Your task to perform on an android device: Go to battery settings Image 0: 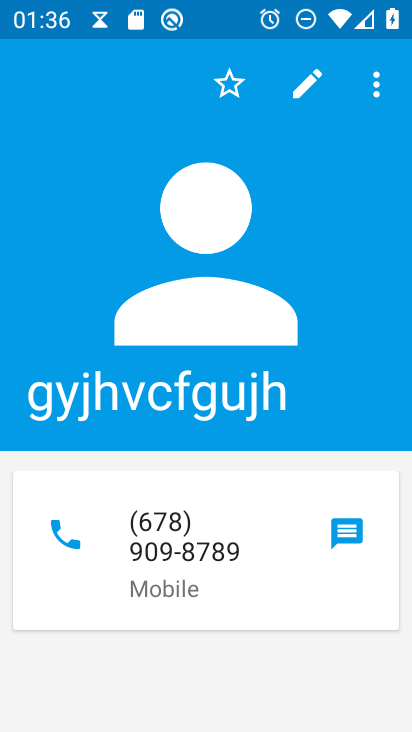
Step 0: press home button
Your task to perform on an android device: Go to battery settings Image 1: 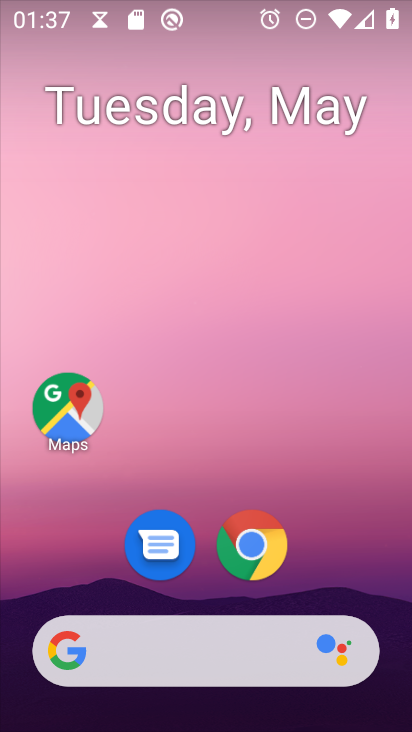
Step 1: drag from (333, 596) to (336, 93)
Your task to perform on an android device: Go to battery settings Image 2: 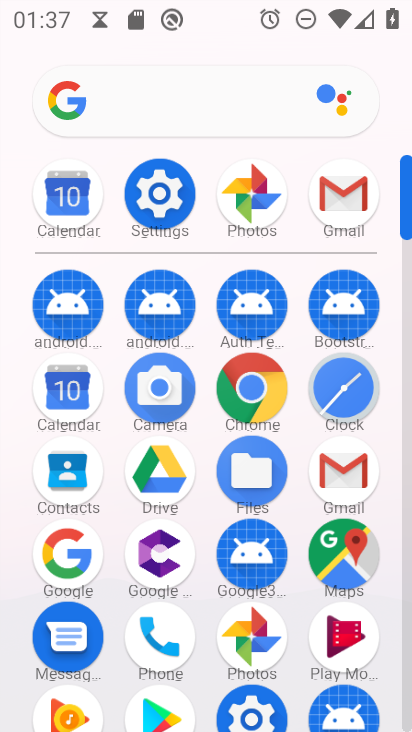
Step 2: click (160, 197)
Your task to perform on an android device: Go to battery settings Image 3: 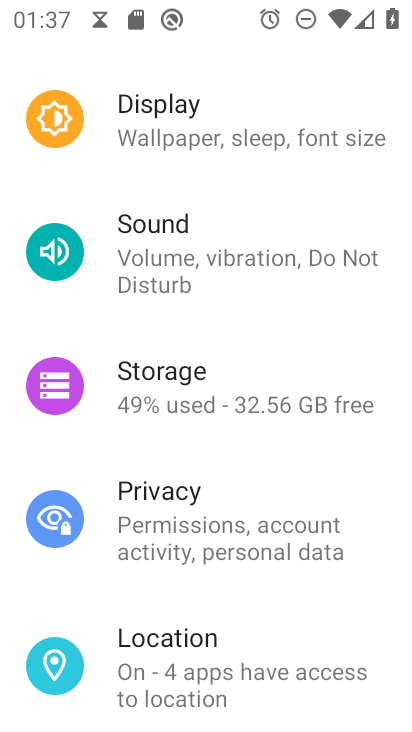
Step 3: drag from (180, 241) to (229, 413)
Your task to perform on an android device: Go to battery settings Image 4: 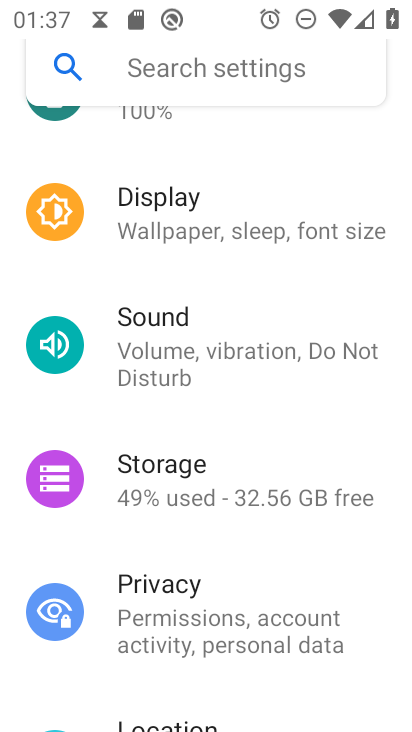
Step 4: drag from (176, 262) to (190, 554)
Your task to perform on an android device: Go to battery settings Image 5: 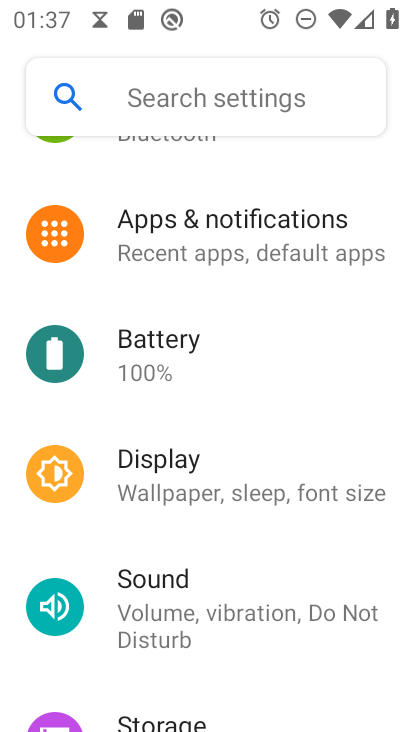
Step 5: click (197, 367)
Your task to perform on an android device: Go to battery settings Image 6: 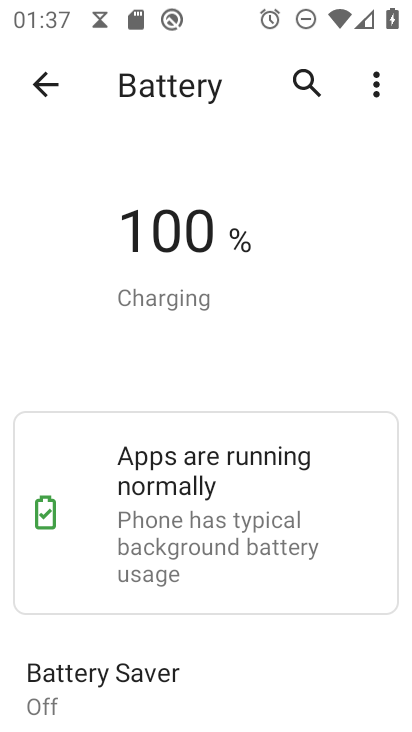
Step 6: task complete